Your task to perform on an android device: check battery use Image 0: 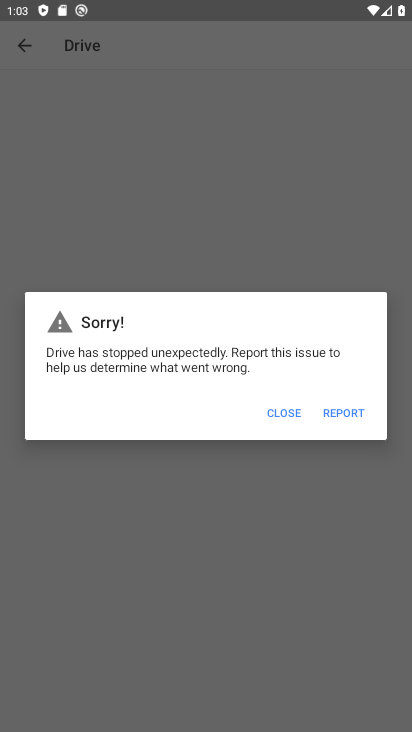
Step 0: press home button
Your task to perform on an android device: check battery use Image 1: 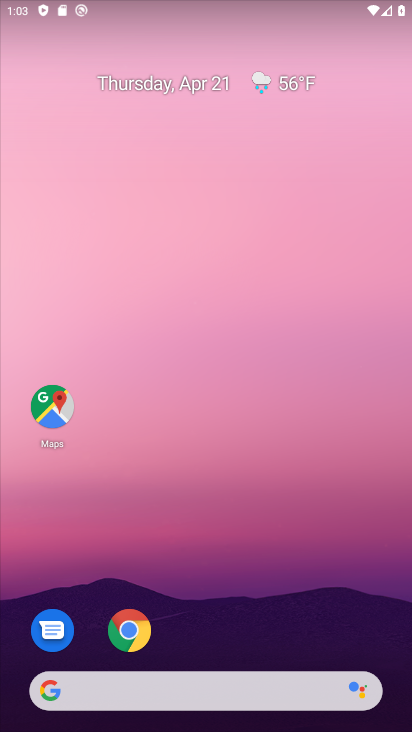
Step 1: drag from (270, 456) to (281, 125)
Your task to perform on an android device: check battery use Image 2: 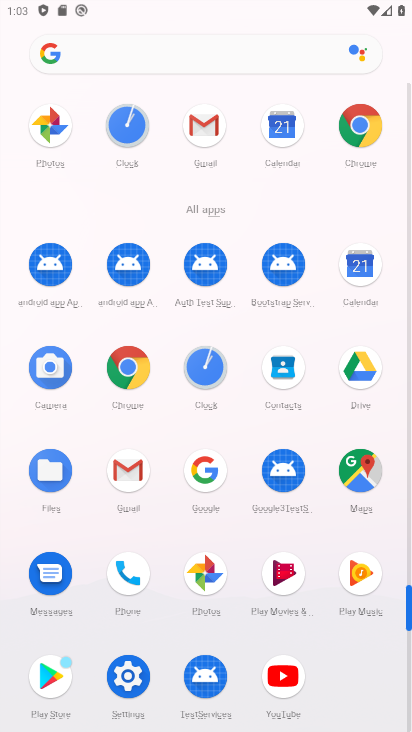
Step 2: drag from (309, 216) to (265, 35)
Your task to perform on an android device: check battery use Image 3: 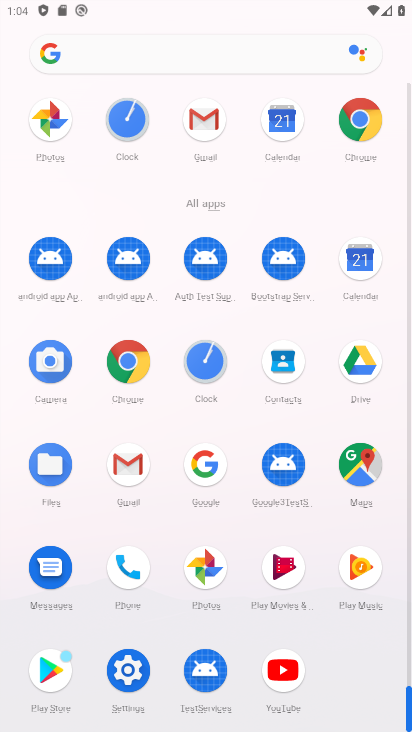
Step 3: click (118, 668)
Your task to perform on an android device: check battery use Image 4: 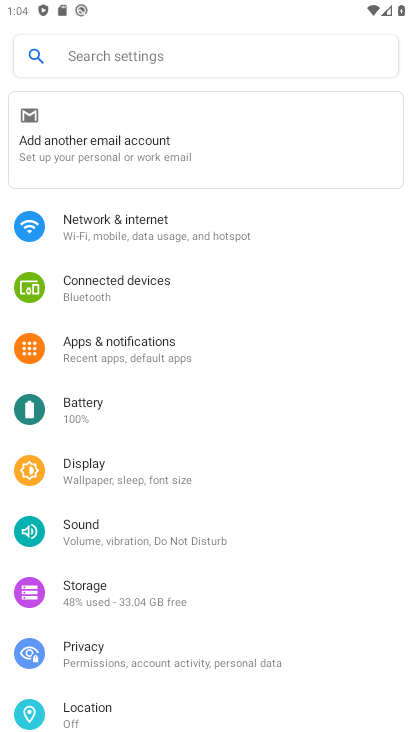
Step 4: click (120, 408)
Your task to perform on an android device: check battery use Image 5: 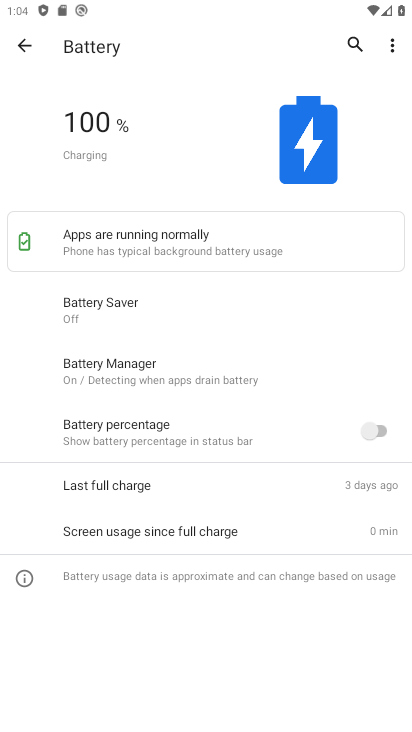
Step 5: click (391, 44)
Your task to perform on an android device: check battery use Image 6: 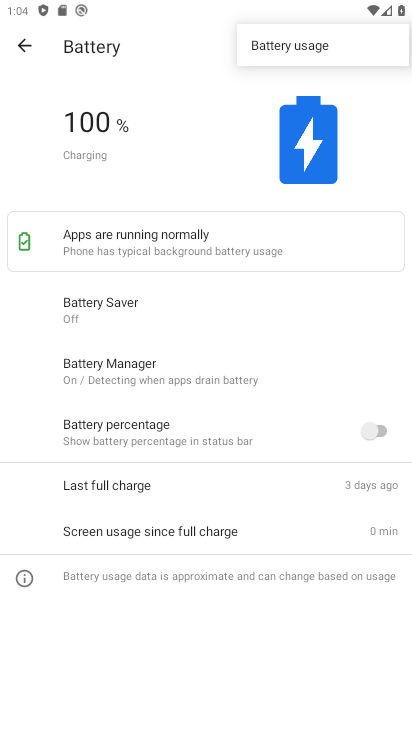
Step 6: click (317, 46)
Your task to perform on an android device: check battery use Image 7: 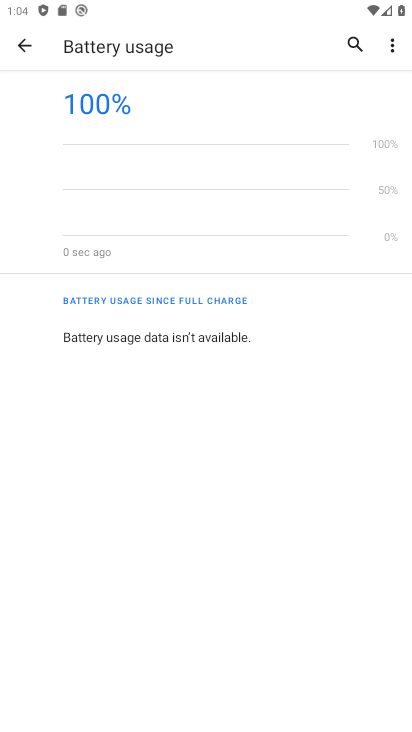
Step 7: task complete